Your task to perform on an android device: check out phone information Image 0: 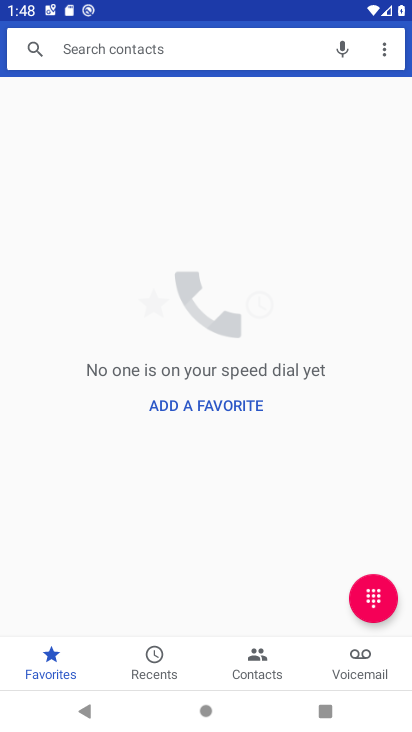
Step 0: press home button
Your task to perform on an android device: check out phone information Image 1: 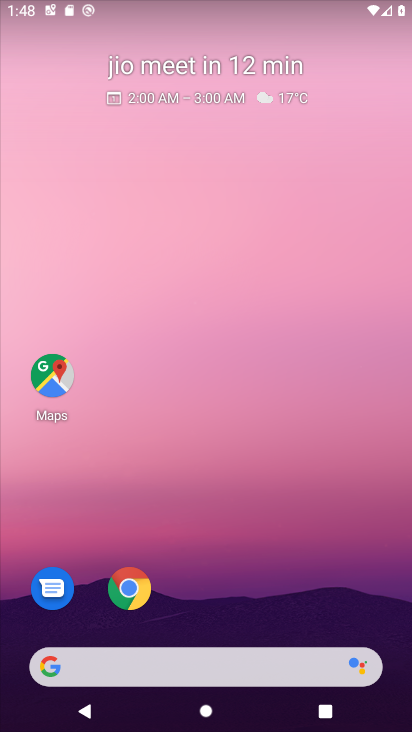
Step 1: drag from (271, 711) to (278, 2)
Your task to perform on an android device: check out phone information Image 2: 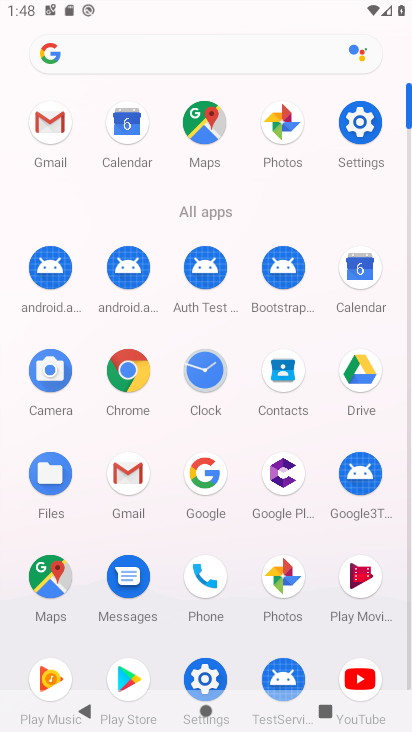
Step 2: click (360, 124)
Your task to perform on an android device: check out phone information Image 3: 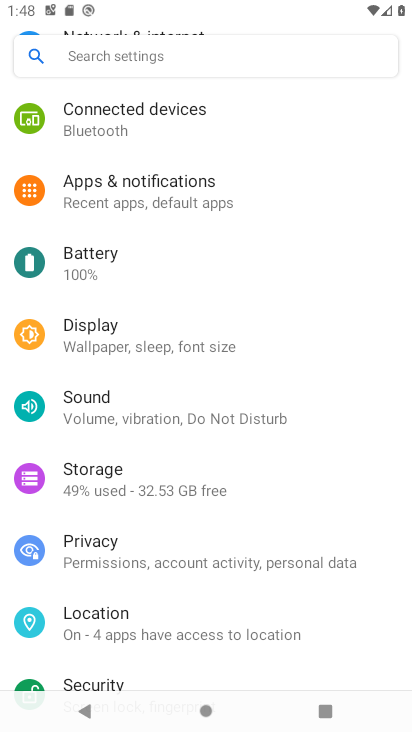
Step 3: drag from (282, 495) to (292, 15)
Your task to perform on an android device: check out phone information Image 4: 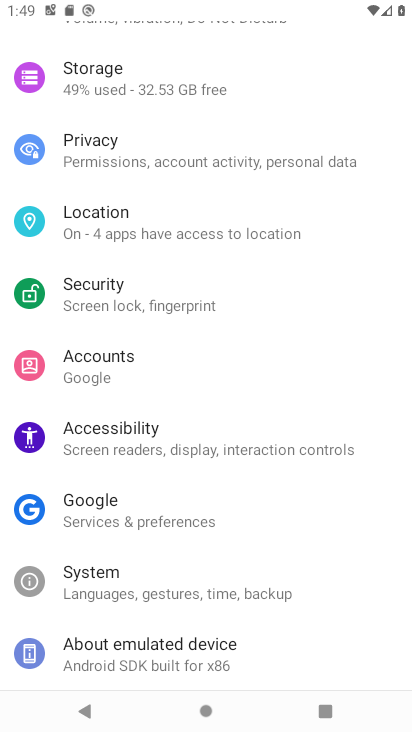
Step 4: drag from (298, 607) to (353, 21)
Your task to perform on an android device: check out phone information Image 5: 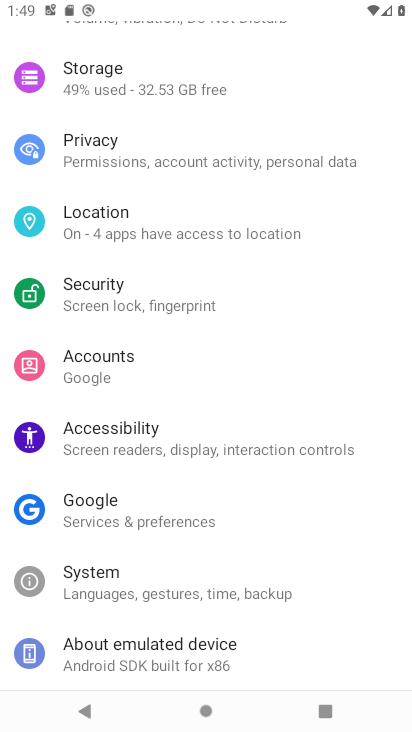
Step 5: drag from (246, 587) to (391, 11)
Your task to perform on an android device: check out phone information Image 6: 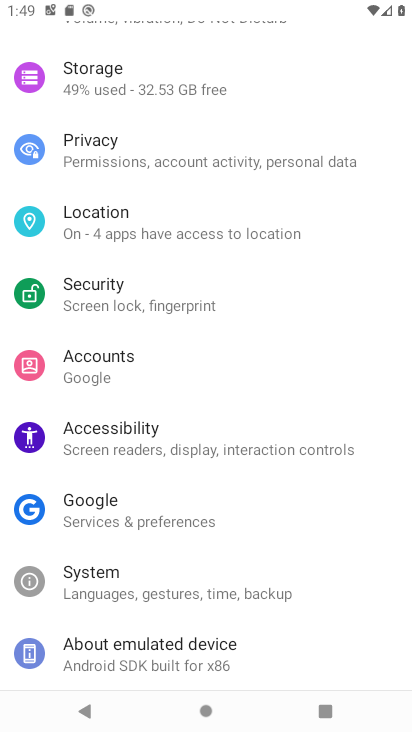
Step 6: click (201, 655)
Your task to perform on an android device: check out phone information Image 7: 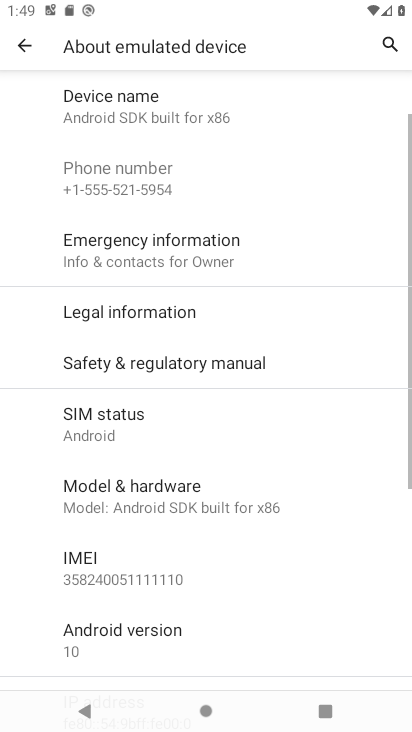
Step 7: task complete